Your task to perform on an android device: turn off smart reply in the gmail app Image 0: 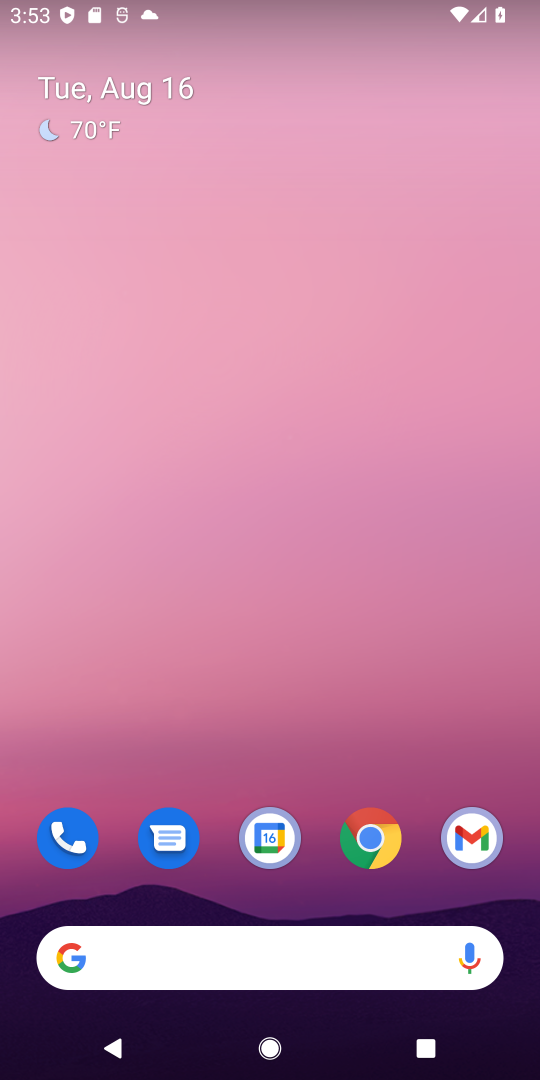
Step 0: drag from (329, 964) to (333, 329)
Your task to perform on an android device: turn off smart reply in the gmail app Image 1: 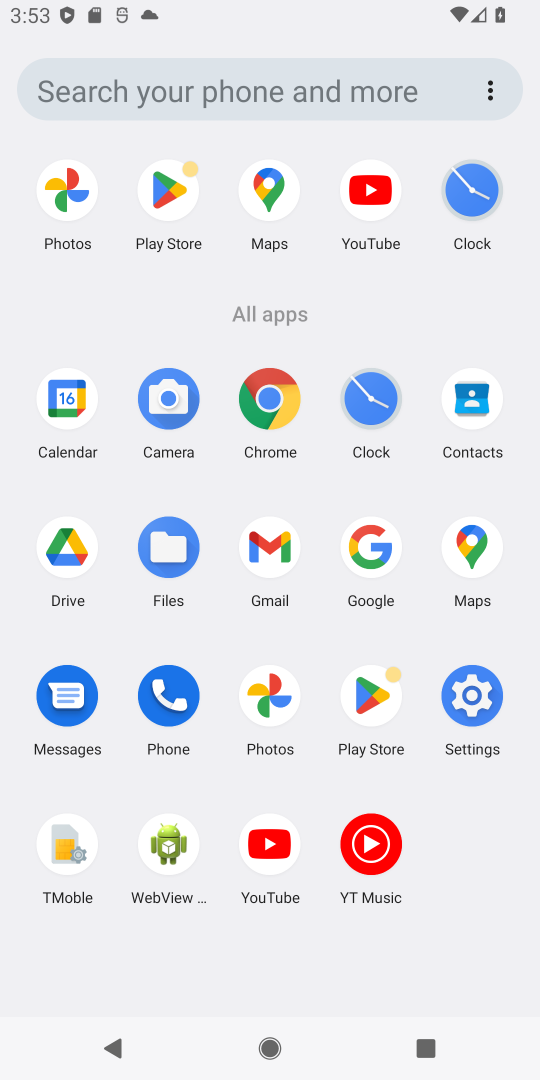
Step 1: click (275, 529)
Your task to perform on an android device: turn off smart reply in the gmail app Image 2: 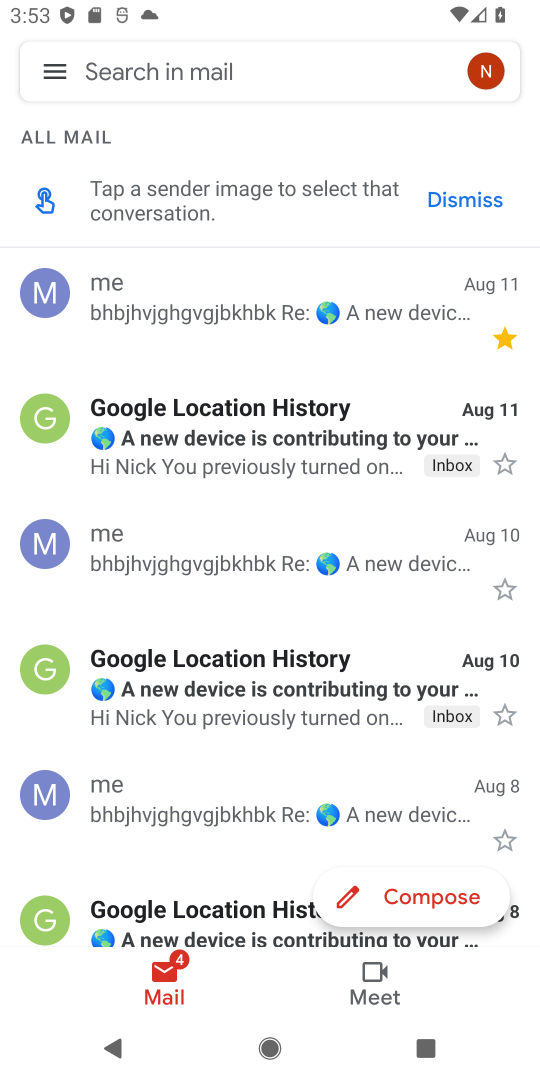
Step 2: click (60, 73)
Your task to perform on an android device: turn off smart reply in the gmail app Image 3: 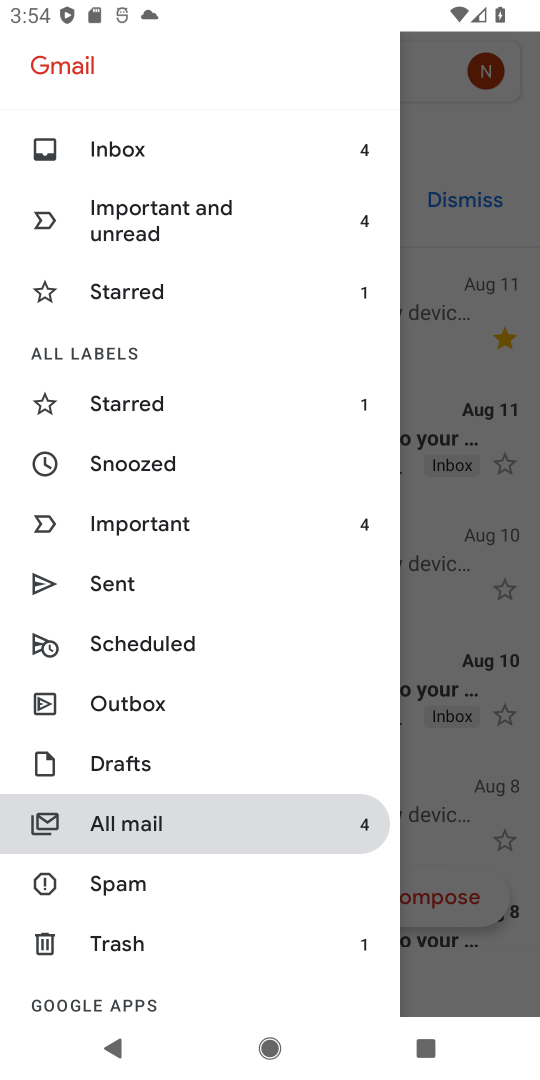
Step 3: drag from (176, 813) to (195, 122)
Your task to perform on an android device: turn off smart reply in the gmail app Image 4: 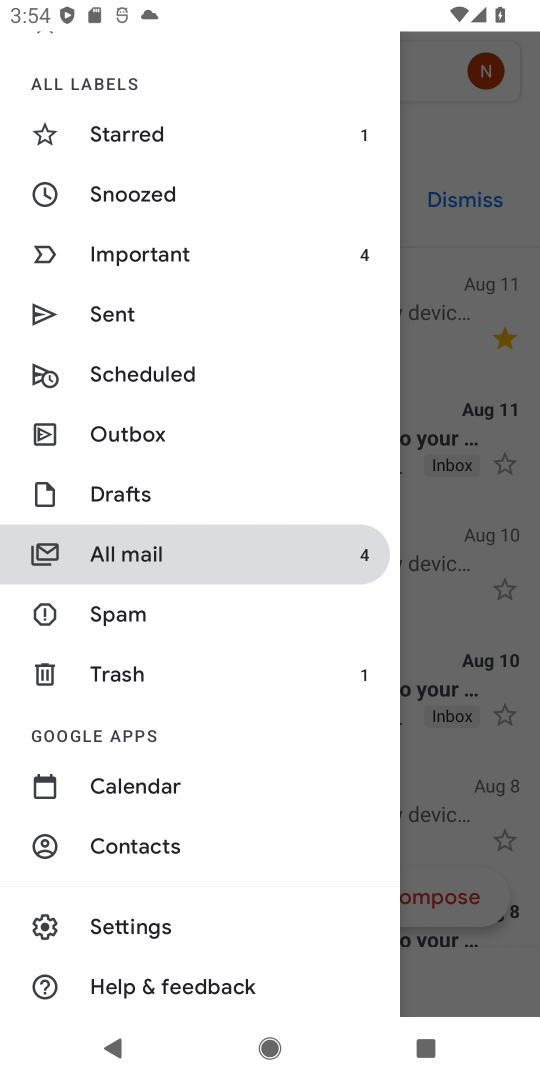
Step 4: click (149, 922)
Your task to perform on an android device: turn off smart reply in the gmail app Image 5: 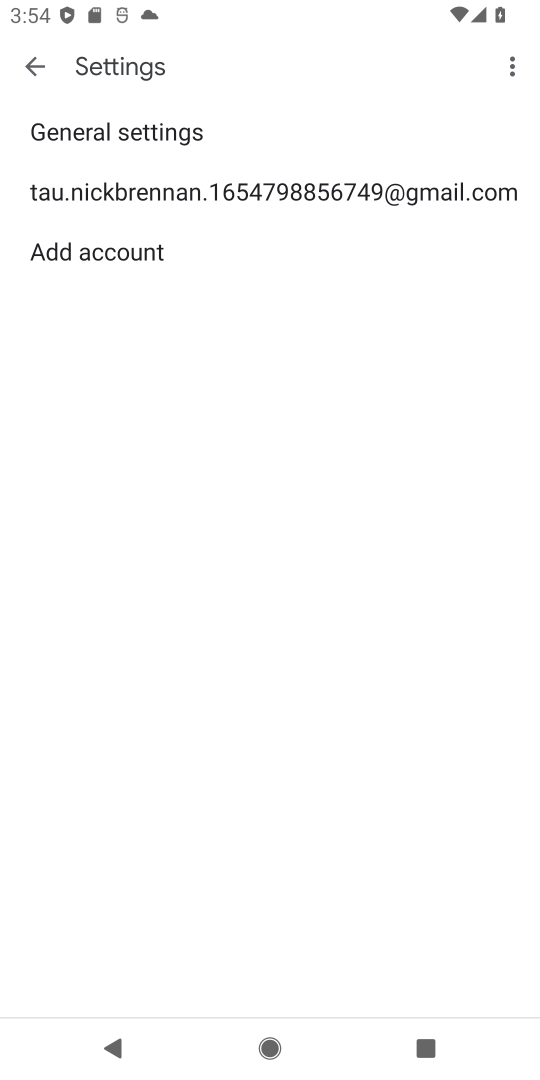
Step 5: click (192, 197)
Your task to perform on an android device: turn off smart reply in the gmail app Image 6: 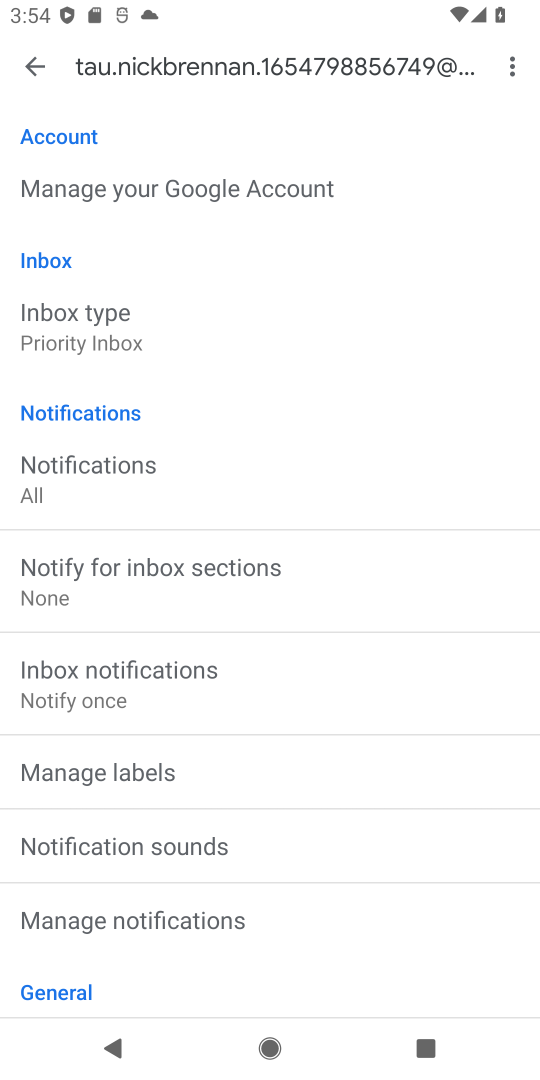
Step 6: drag from (260, 915) to (193, 163)
Your task to perform on an android device: turn off smart reply in the gmail app Image 7: 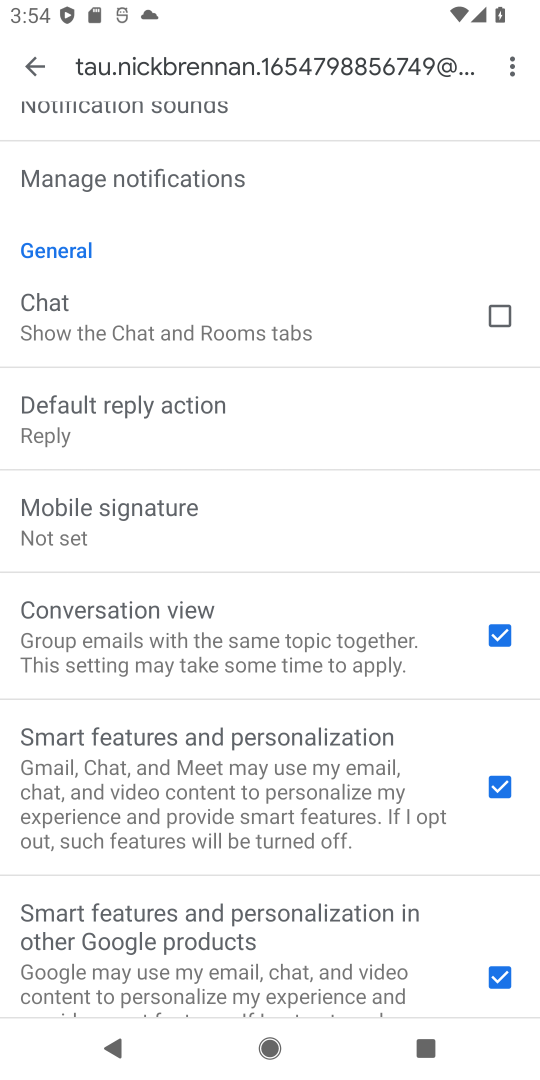
Step 7: drag from (255, 723) to (528, 236)
Your task to perform on an android device: turn off smart reply in the gmail app Image 8: 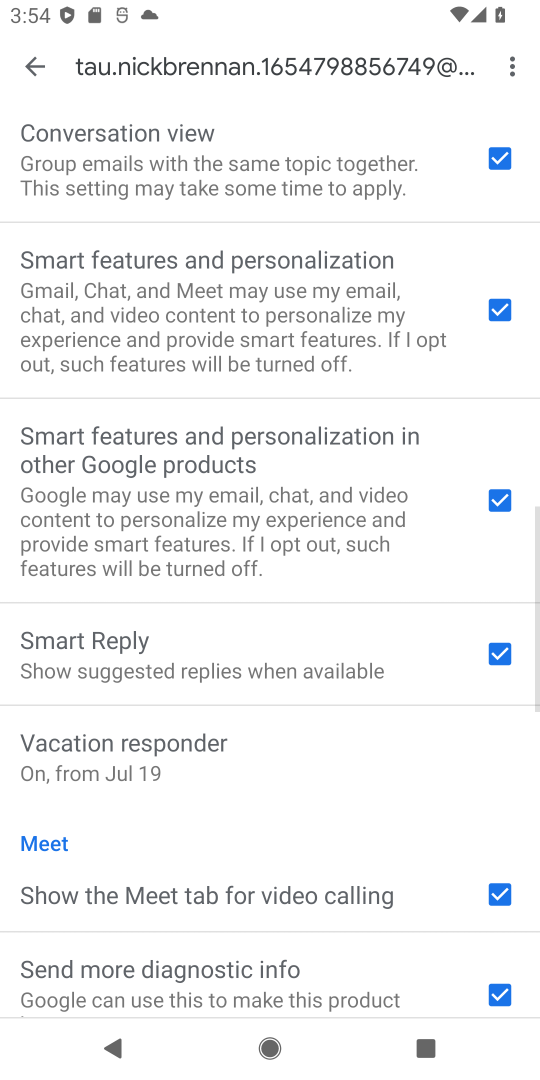
Step 8: drag from (291, 836) to (319, 77)
Your task to perform on an android device: turn off smart reply in the gmail app Image 9: 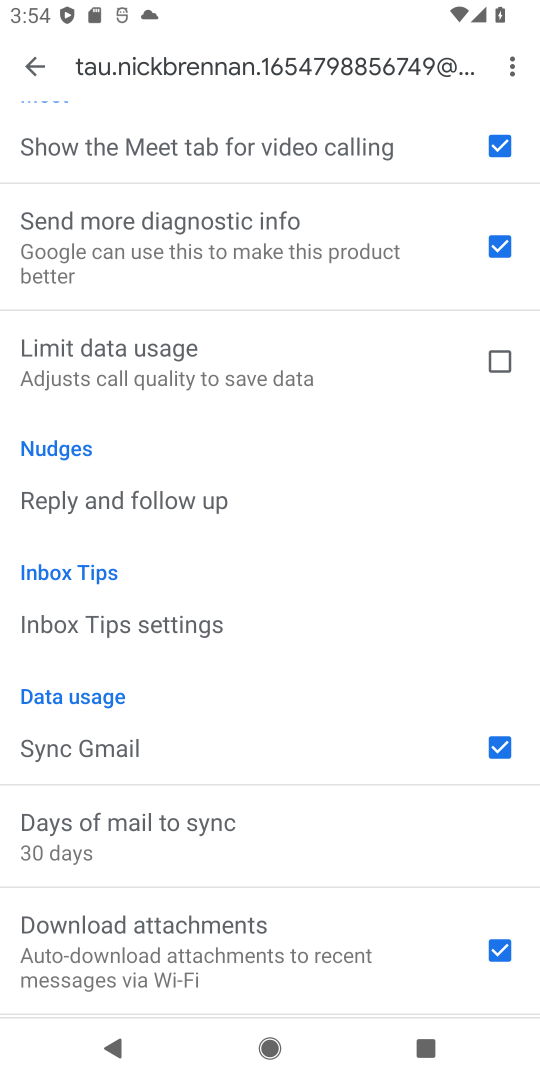
Step 9: drag from (320, 881) to (299, 351)
Your task to perform on an android device: turn off smart reply in the gmail app Image 10: 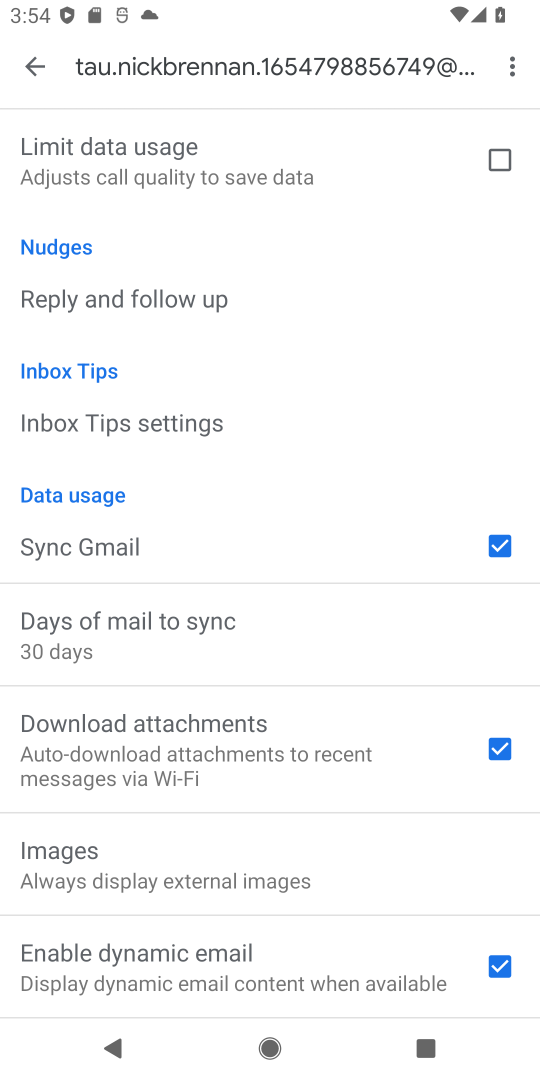
Step 10: drag from (381, 943) to (376, 455)
Your task to perform on an android device: turn off smart reply in the gmail app Image 11: 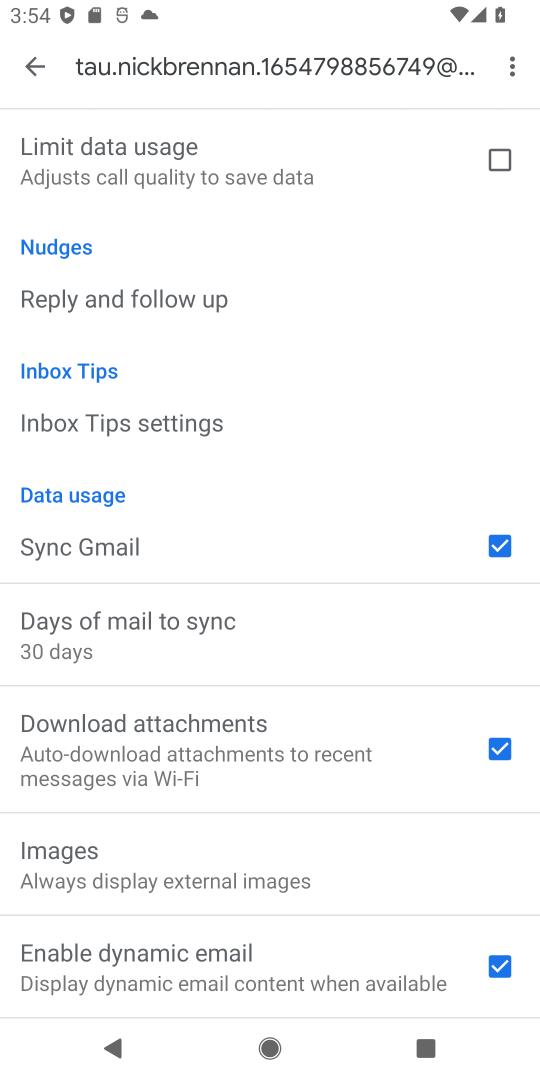
Step 11: drag from (324, 322) to (380, 911)
Your task to perform on an android device: turn off smart reply in the gmail app Image 12: 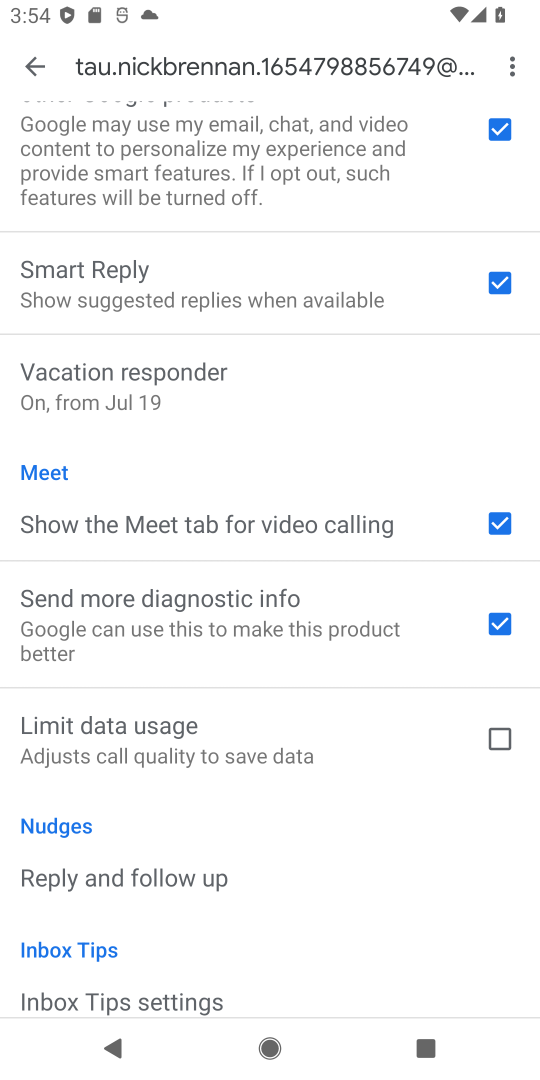
Step 12: click (492, 292)
Your task to perform on an android device: turn off smart reply in the gmail app Image 13: 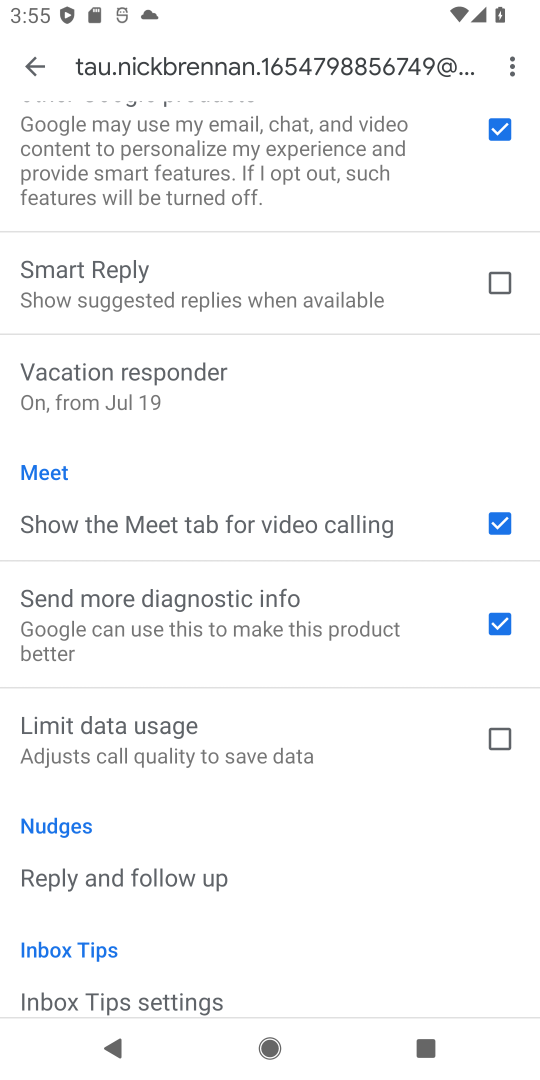
Step 13: task complete